Your task to perform on an android device: change alarm snooze length Image 0: 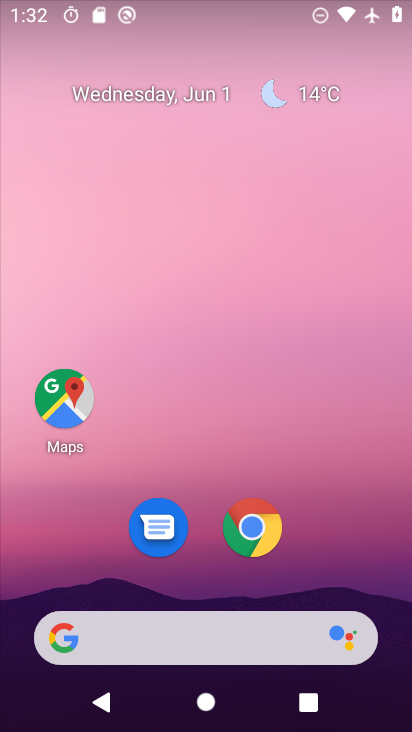
Step 0: drag from (254, 281) to (294, 79)
Your task to perform on an android device: change alarm snooze length Image 1: 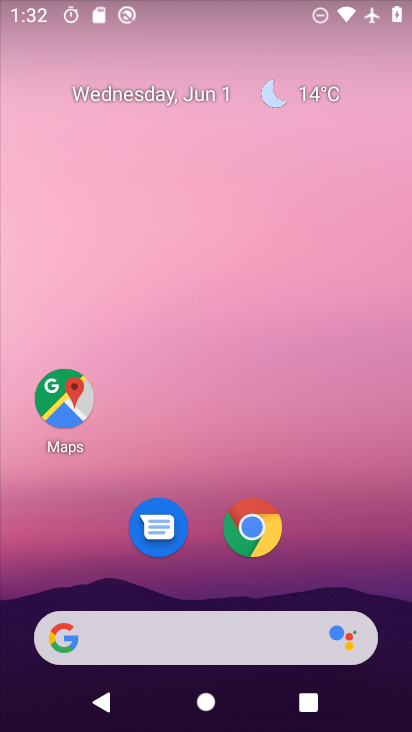
Step 1: drag from (217, 662) to (297, 131)
Your task to perform on an android device: change alarm snooze length Image 2: 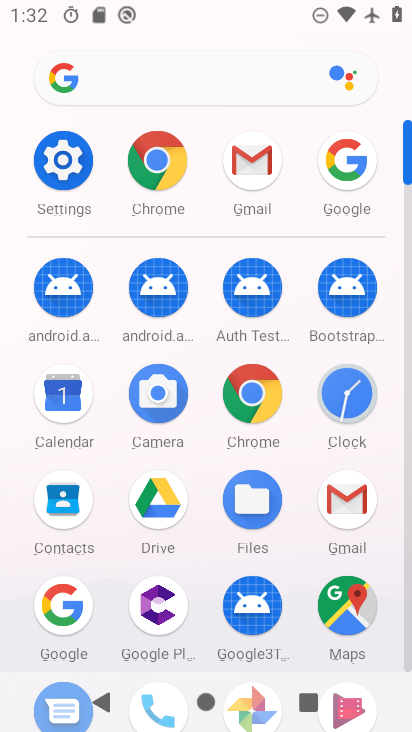
Step 2: click (358, 406)
Your task to perform on an android device: change alarm snooze length Image 3: 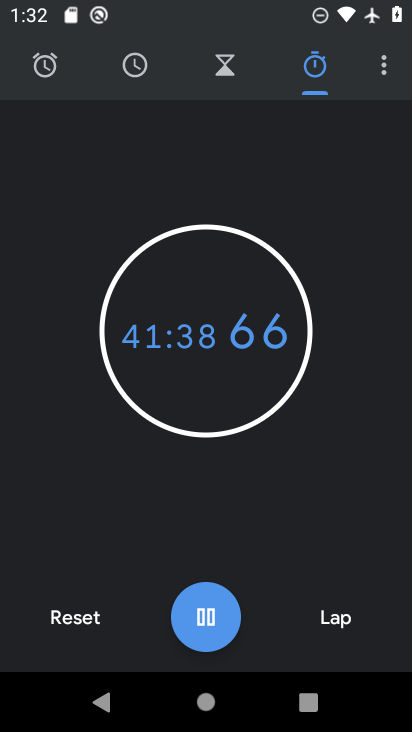
Step 3: click (387, 58)
Your task to perform on an android device: change alarm snooze length Image 4: 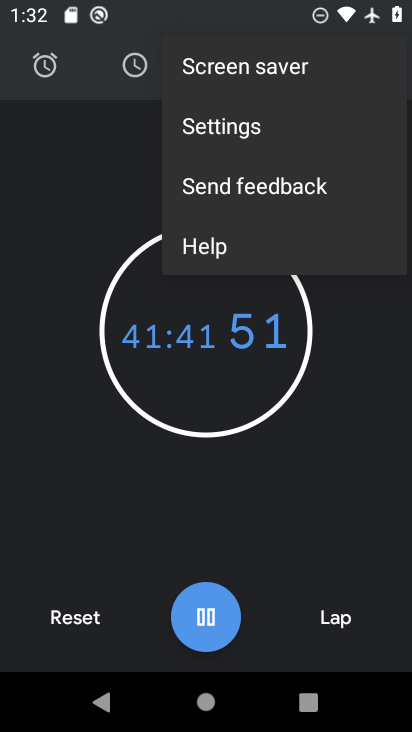
Step 4: click (216, 149)
Your task to perform on an android device: change alarm snooze length Image 5: 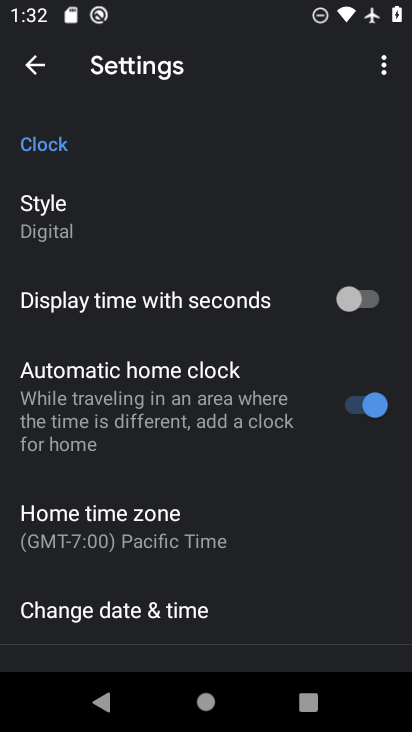
Step 5: drag from (152, 480) to (208, 241)
Your task to perform on an android device: change alarm snooze length Image 6: 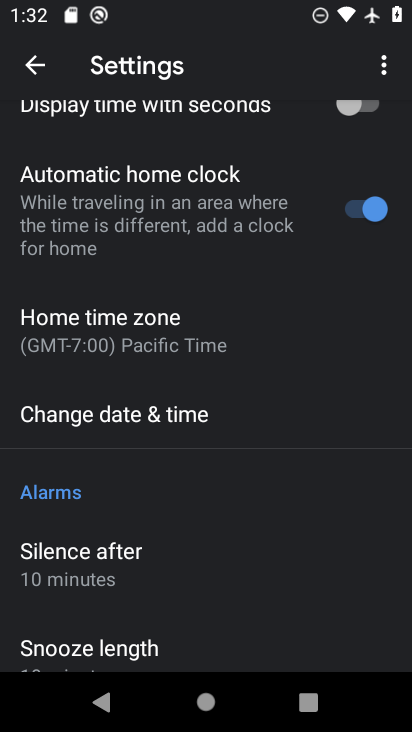
Step 6: drag from (130, 587) to (168, 434)
Your task to perform on an android device: change alarm snooze length Image 7: 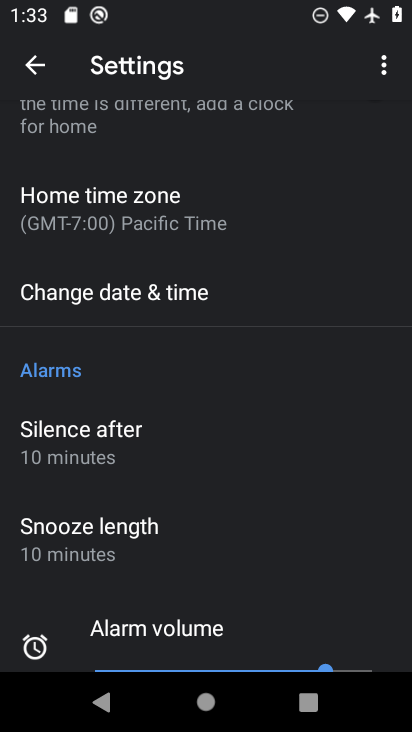
Step 7: click (132, 534)
Your task to perform on an android device: change alarm snooze length Image 8: 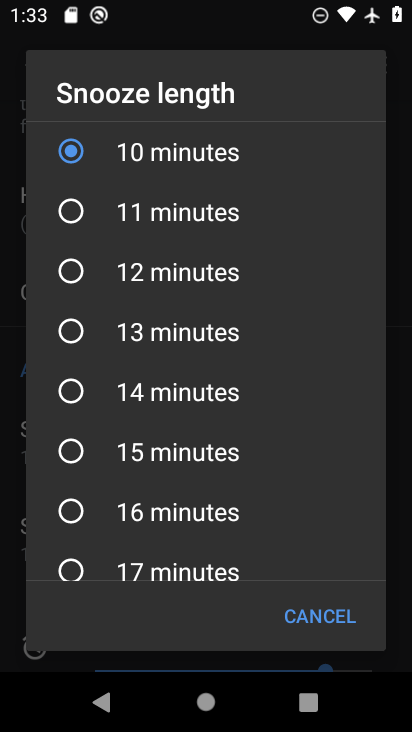
Step 8: click (137, 281)
Your task to perform on an android device: change alarm snooze length Image 9: 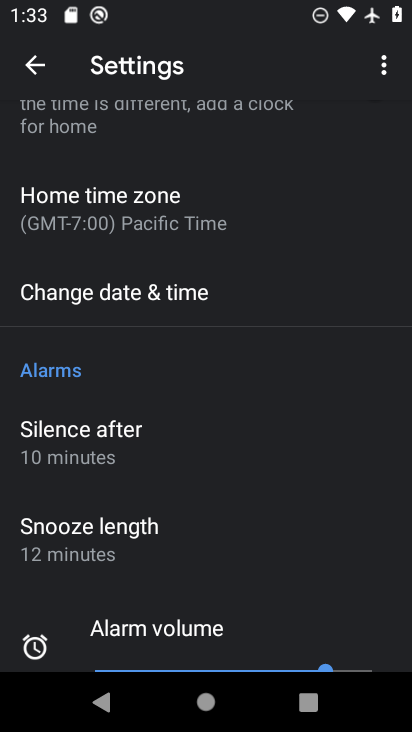
Step 9: task complete